Your task to perform on an android device: Open Chrome and go to the settings page Image 0: 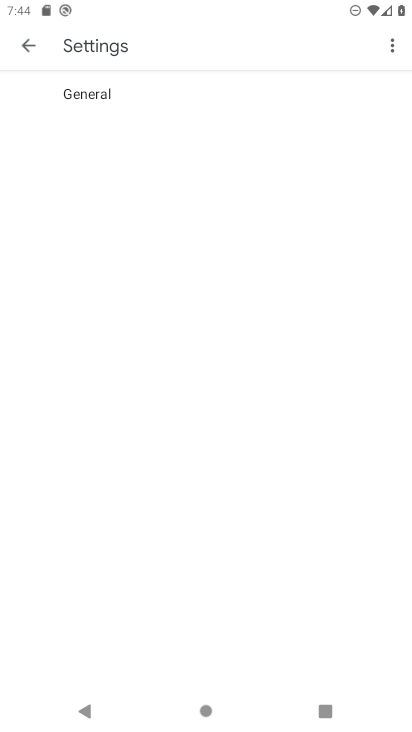
Step 0: press home button
Your task to perform on an android device: Open Chrome and go to the settings page Image 1: 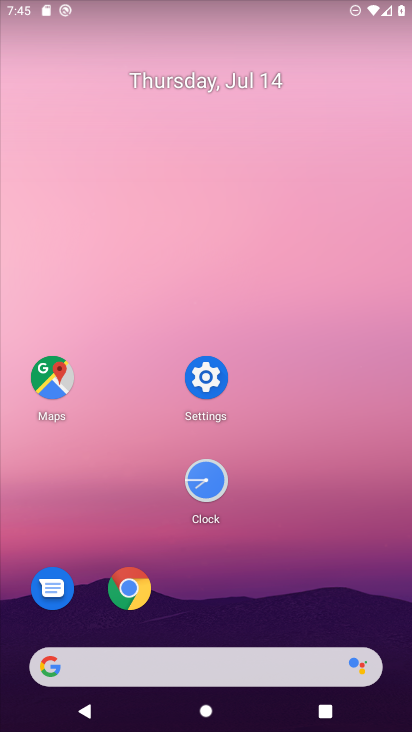
Step 1: click (133, 580)
Your task to perform on an android device: Open Chrome and go to the settings page Image 2: 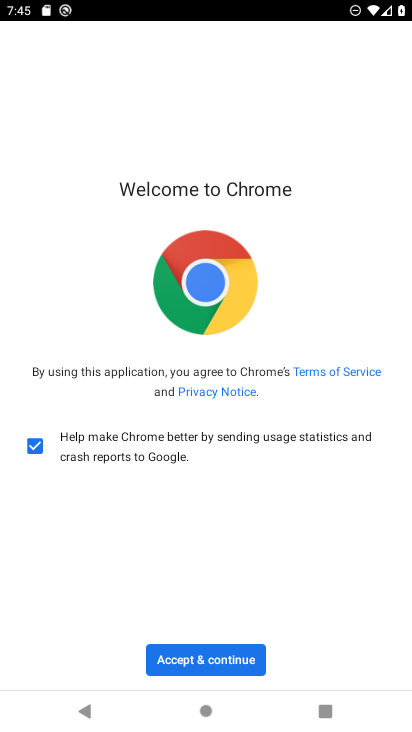
Step 2: click (255, 657)
Your task to perform on an android device: Open Chrome and go to the settings page Image 3: 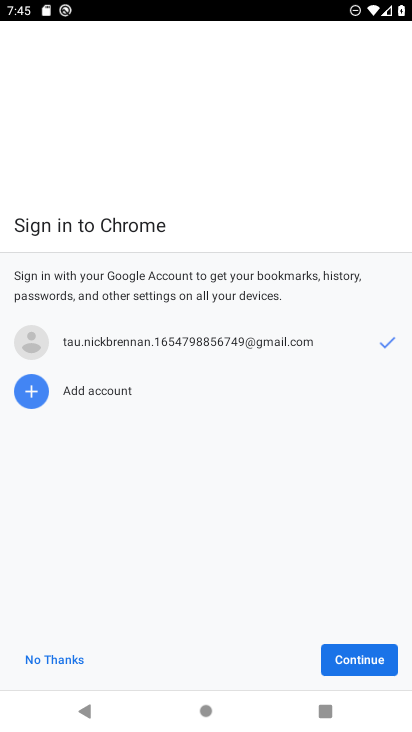
Step 3: click (337, 656)
Your task to perform on an android device: Open Chrome and go to the settings page Image 4: 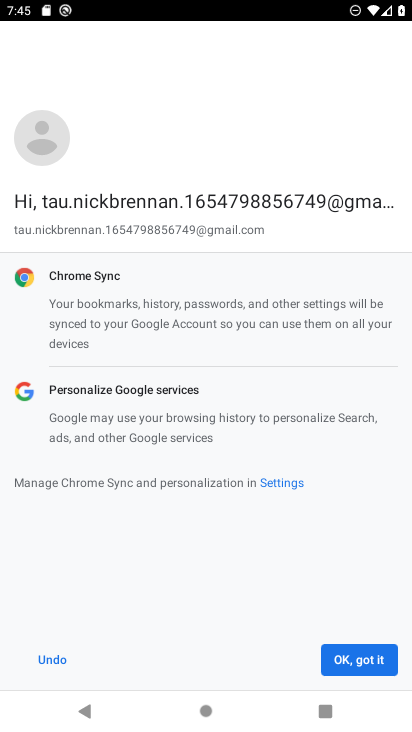
Step 4: click (340, 657)
Your task to perform on an android device: Open Chrome and go to the settings page Image 5: 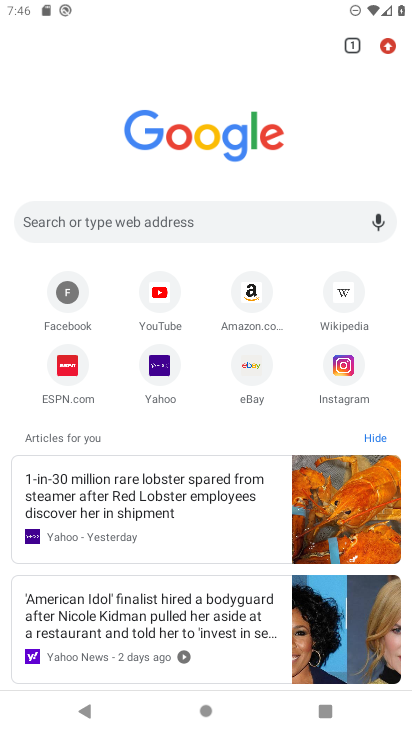
Step 5: click (394, 49)
Your task to perform on an android device: Open Chrome and go to the settings page Image 6: 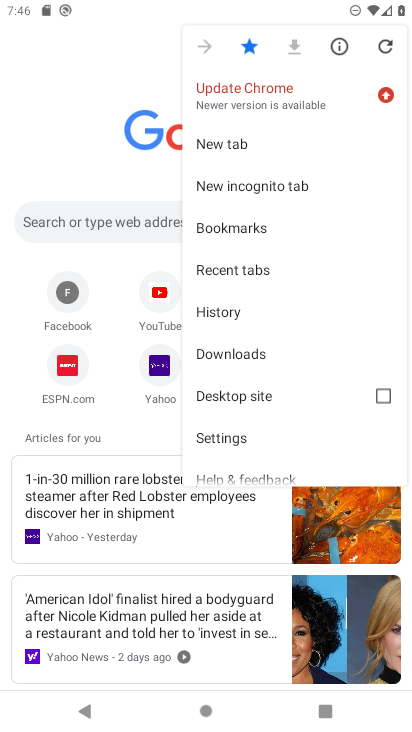
Step 6: click (227, 440)
Your task to perform on an android device: Open Chrome and go to the settings page Image 7: 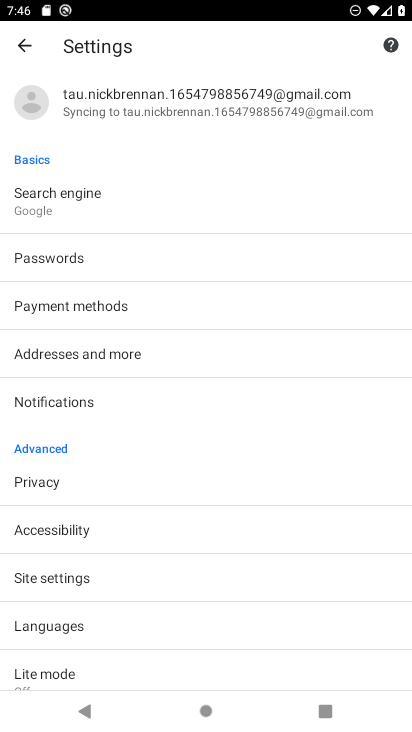
Step 7: task complete